Your task to perform on an android device: What's the time? Image 0: 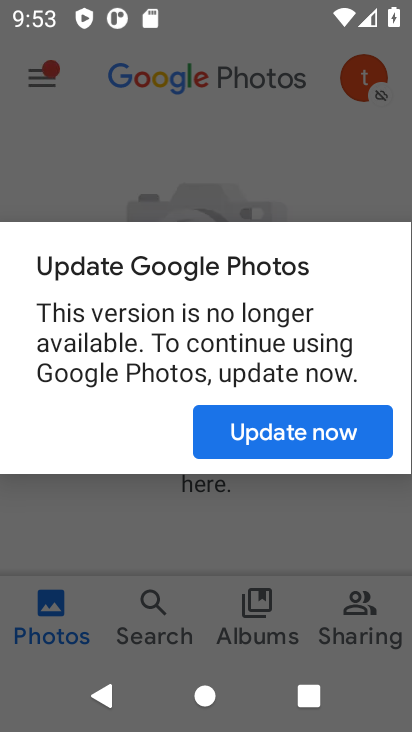
Step 0: press home button
Your task to perform on an android device: What's the time? Image 1: 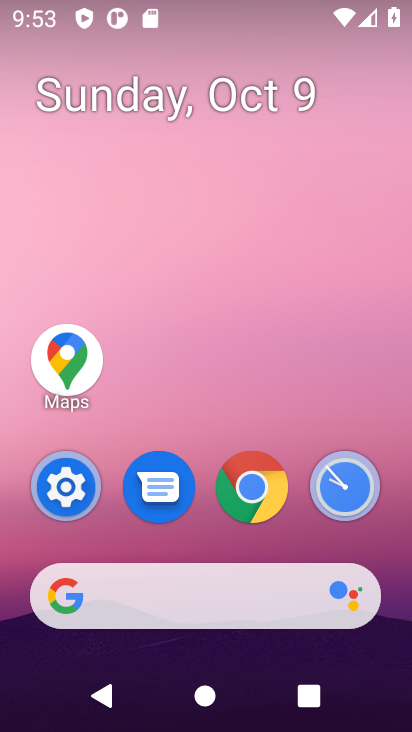
Step 1: drag from (221, 192) to (197, 45)
Your task to perform on an android device: What's the time? Image 2: 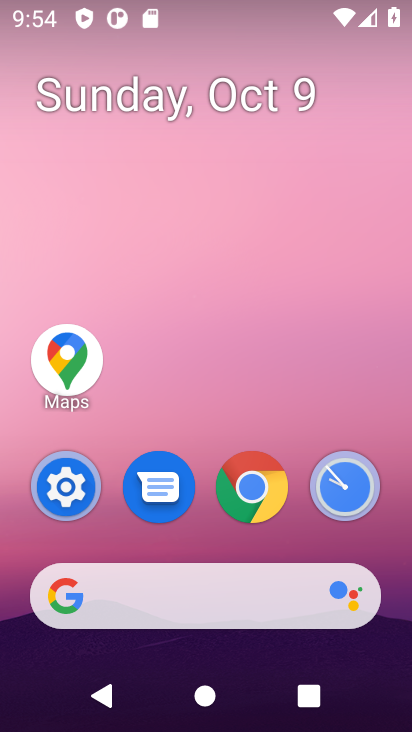
Step 2: drag from (194, 396) to (195, 6)
Your task to perform on an android device: What's the time? Image 3: 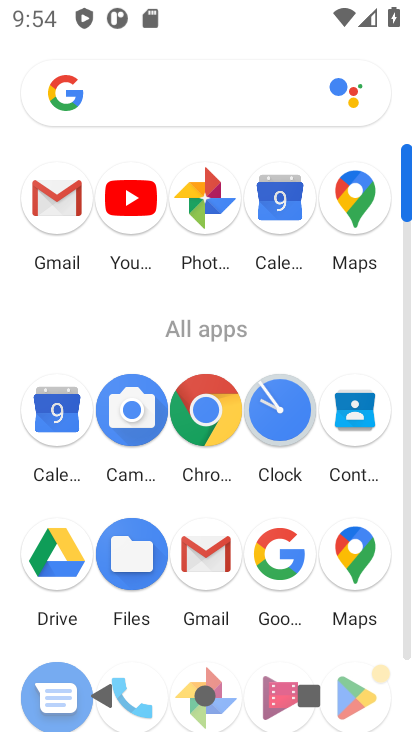
Step 3: drag from (220, 613) to (218, 227)
Your task to perform on an android device: What's the time? Image 4: 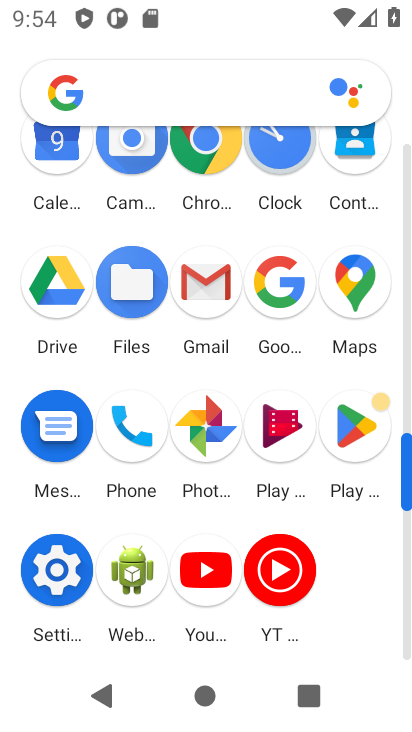
Step 4: drag from (257, 215) to (249, 443)
Your task to perform on an android device: What's the time? Image 5: 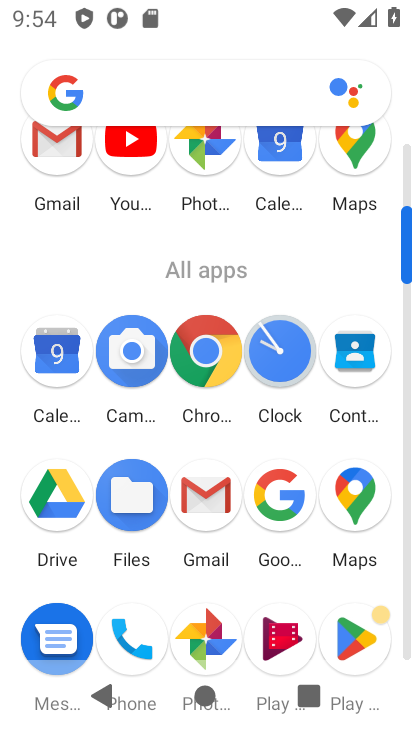
Step 5: click (286, 370)
Your task to perform on an android device: What's the time? Image 6: 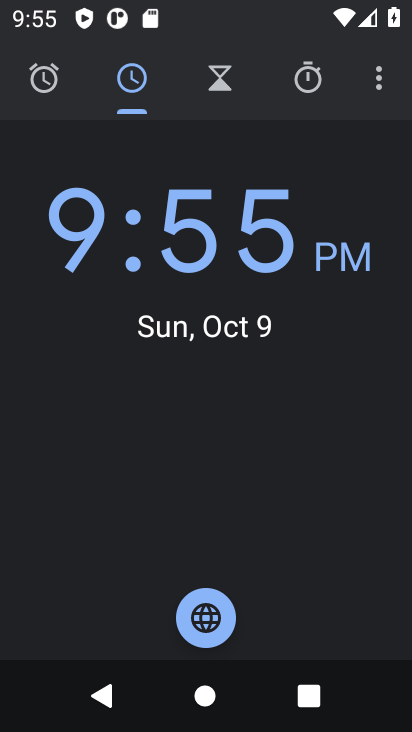
Step 6: click (33, 77)
Your task to perform on an android device: What's the time? Image 7: 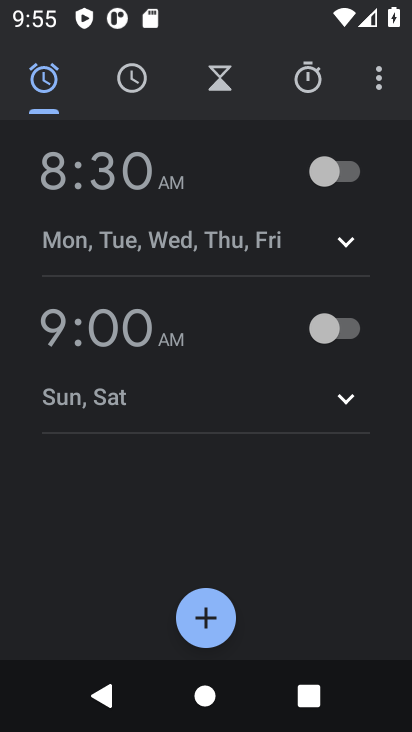
Step 7: task complete